Your task to perform on an android device: turn on bluetooth scan Image 0: 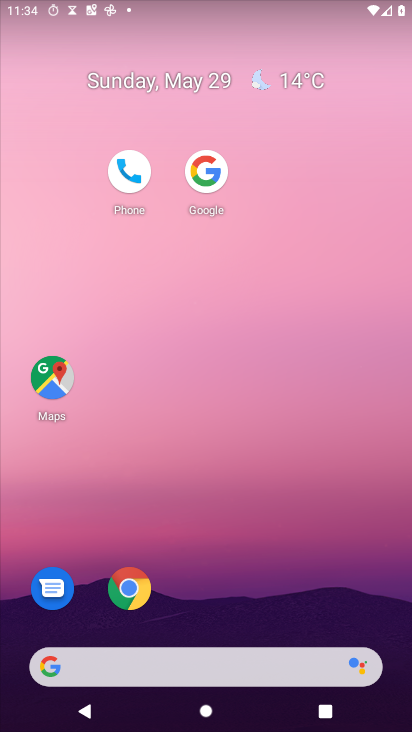
Step 0: click (348, 312)
Your task to perform on an android device: turn on bluetooth scan Image 1: 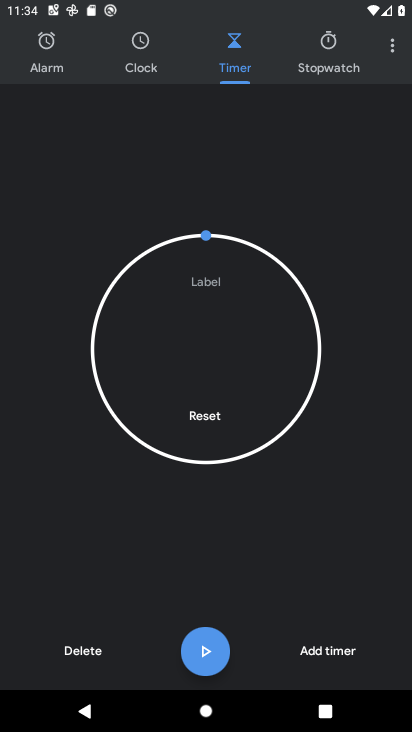
Step 1: click (327, 68)
Your task to perform on an android device: turn on bluetooth scan Image 2: 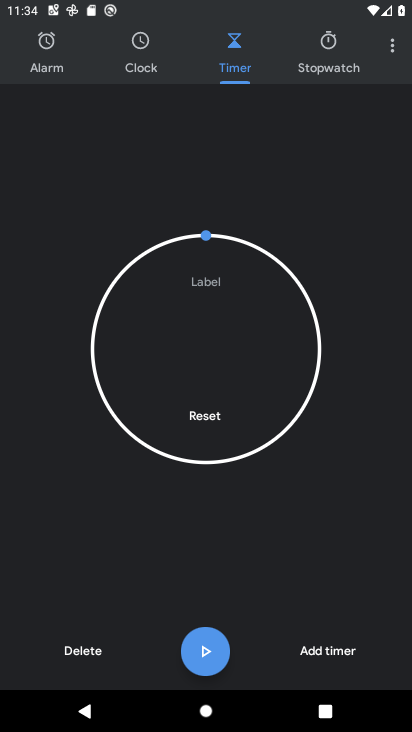
Step 2: click (327, 68)
Your task to perform on an android device: turn on bluetooth scan Image 3: 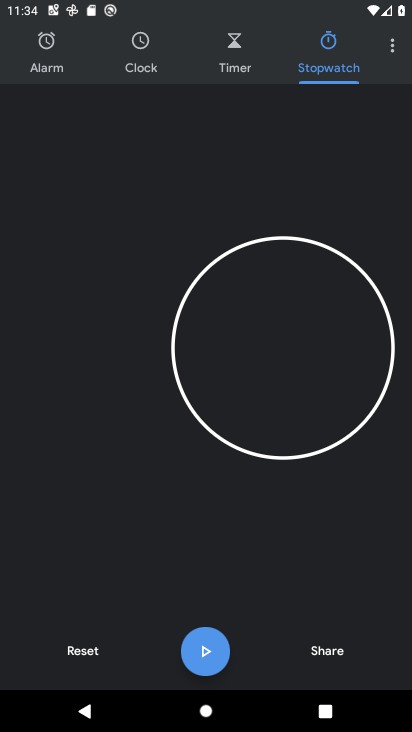
Step 3: click (327, 68)
Your task to perform on an android device: turn on bluetooth scan Image 4: 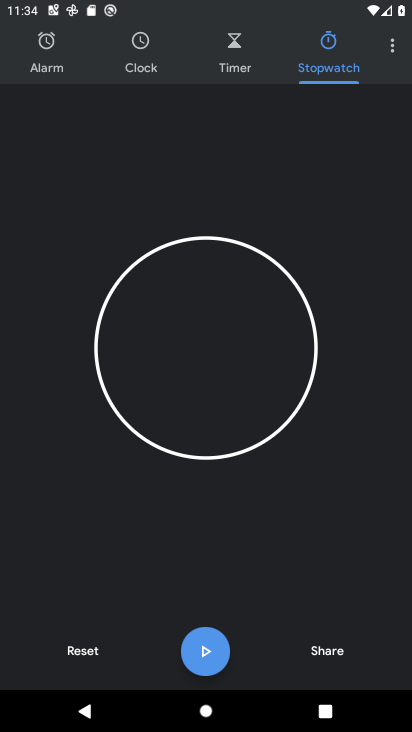
Step 4: click (327, 68)
Your task to perform on an android device: turn on bluetooth scan Image 5: 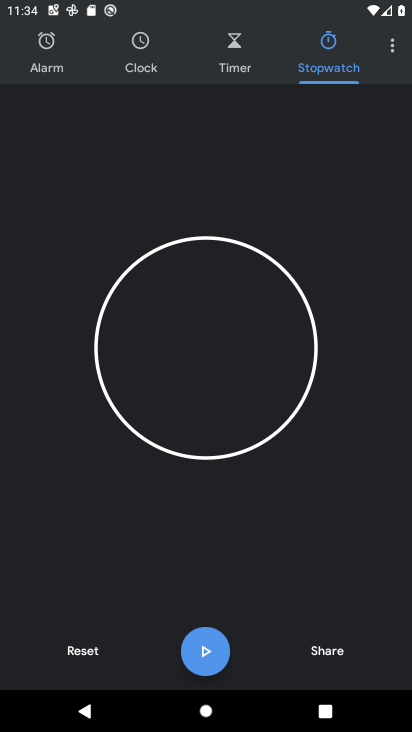
Step 5: press back button
Your task to perform on an android device: turn on bluetooth scan Image 6: 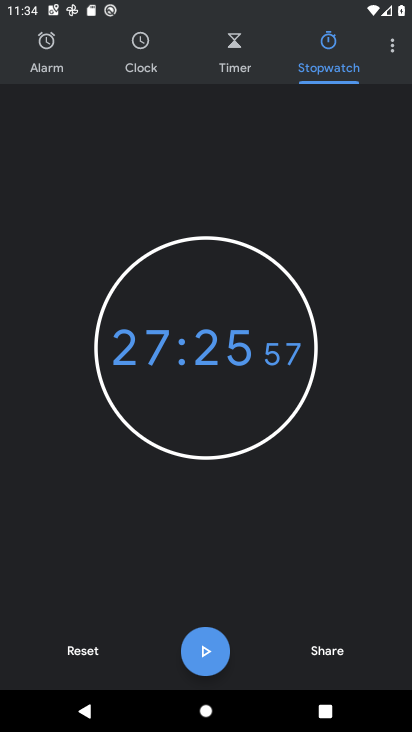
Step 6: press back button
Your task to perform on an android device: turn on bluetooth scan Image 7: 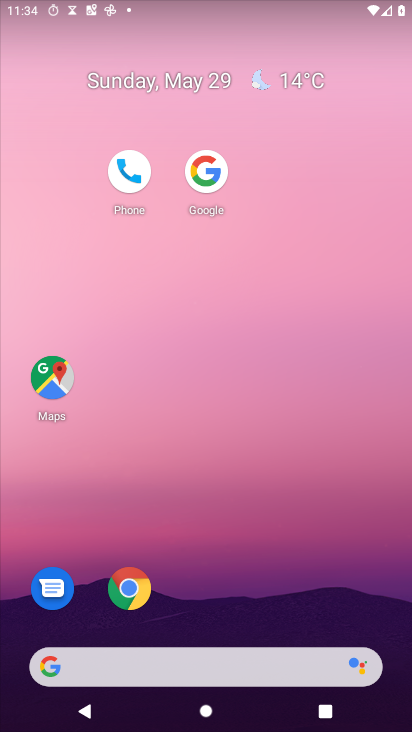
Step 7: press back button
Your task to perform on an android device: turn on bluetooth scan Image 8: 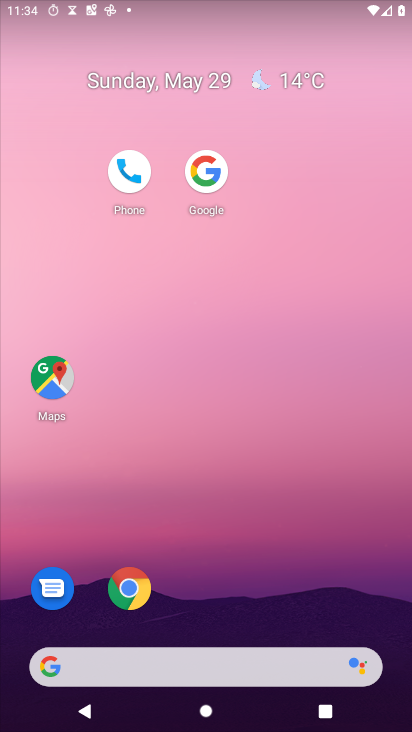
Step 8: press back button
Your task to perform on an android device: turn on bluetooth scan Image 9: 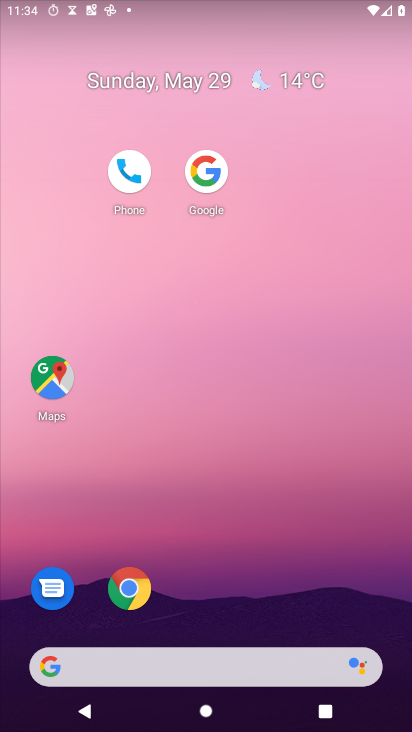
Step 9: press back button
Your task to perform on an android device: turn on bluetooth scan Image 10: 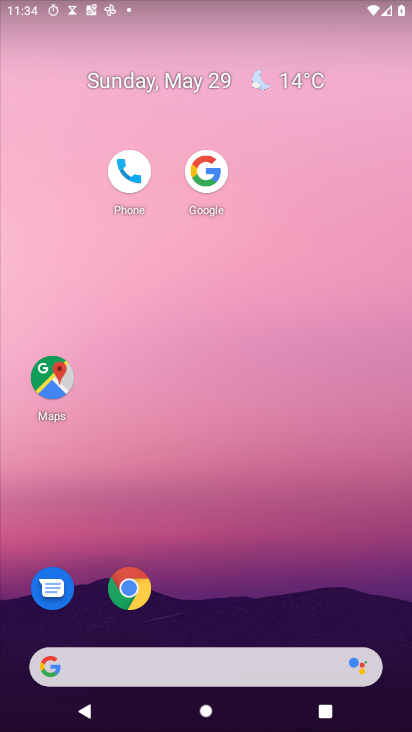
Step 10: press home button
Your task to perform on an android device: turn on bluetooth scan Image 11: 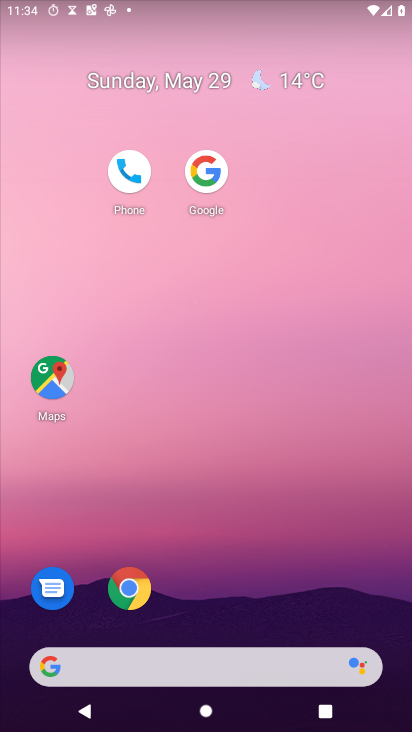
Step 11: press home button
Your task to perform on an android device: turn on bluetooth scan Image 12: 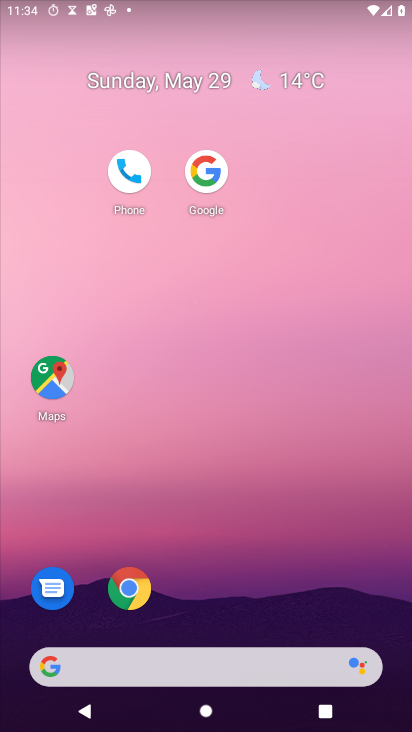
Step 12: drag from (261, 719) to (196, 125)
Your task to perform on an android device: turn on bluetooth scan Image 13: 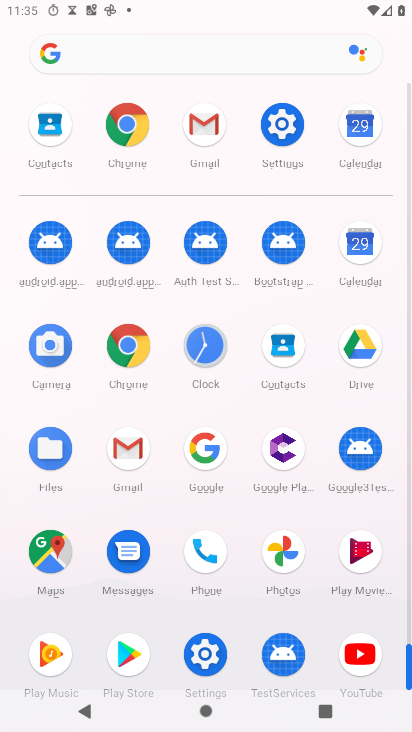
Step 13: click (204, 654)
Your task to perform on an android device: turn on bluetooth scan Image 14: 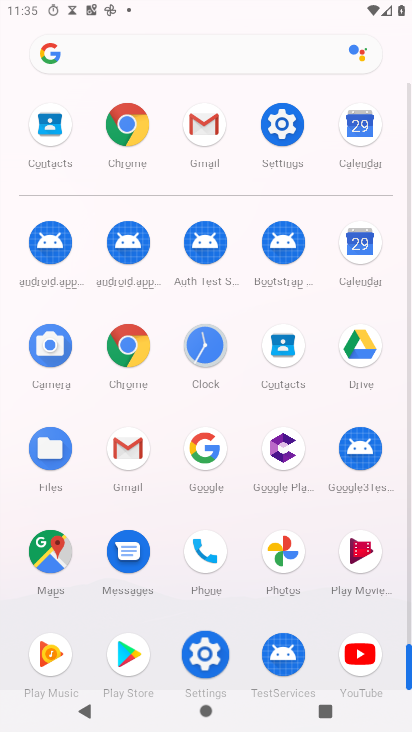
Step 14: click (207, 656)
Your task to perform on an android device: turn on bluetooth scan Image 15: 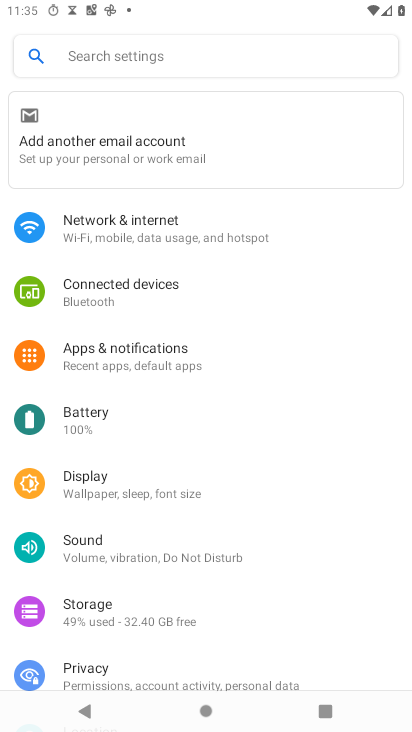
Step 15: click (111, 353)
Your task to perform on an android device: turn on bluetooth scan Image 16: 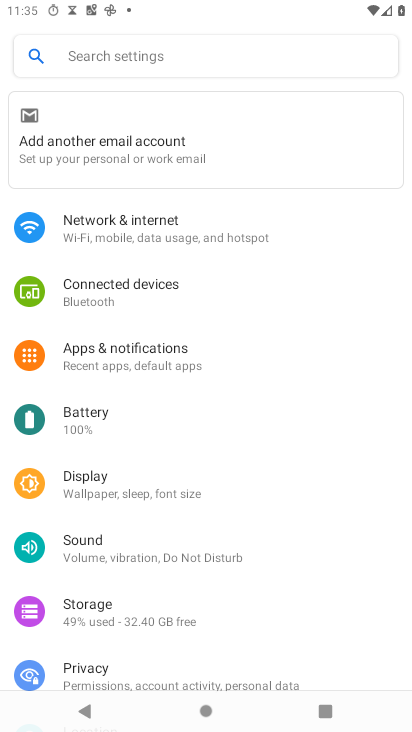
Step 16: click (154, 291)
Your task to perform on an android device: turn on bluetooth scan Image 17: 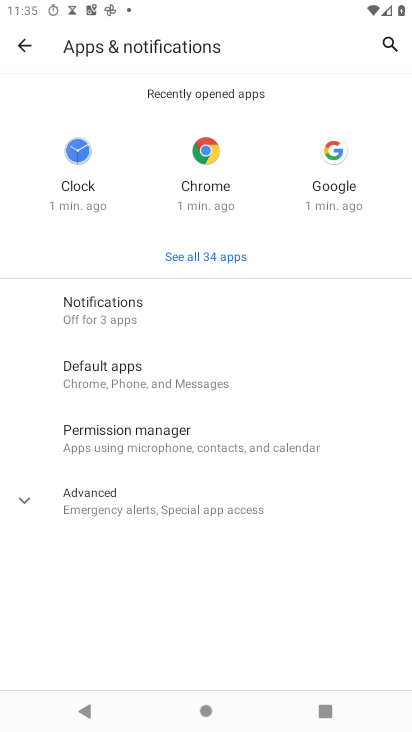
Step 17: drag from (117, 348) to (162, 274)
Your task to perform on an android device: turn on bluetooth scan Image 18: 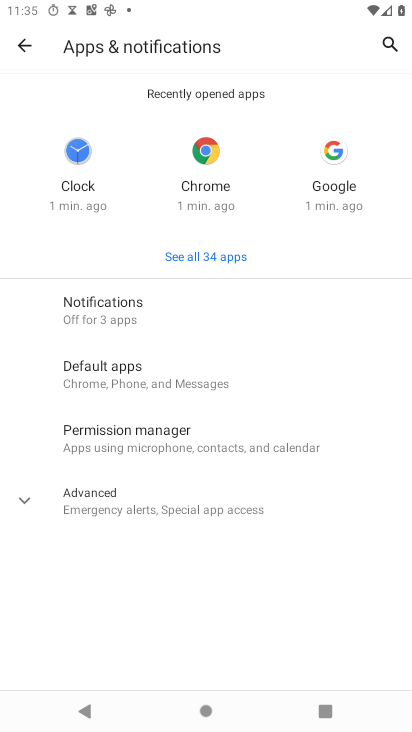
Step 18: drag from (160, 467) to (134, 172)
Your task to perform on an android device: turn on bluetooth scan Image 19: 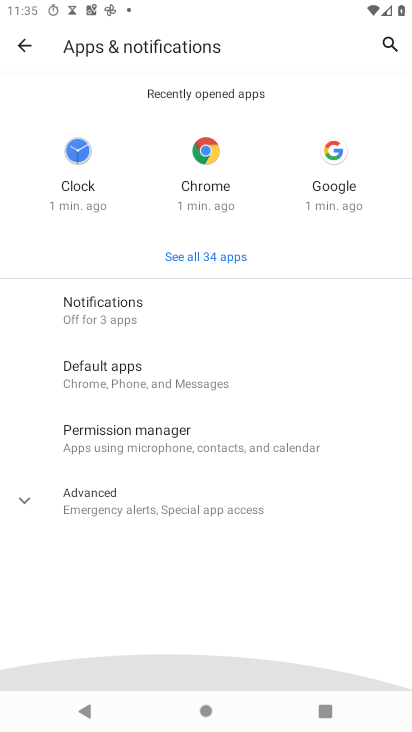
Step 19: click (150, 203)
Your task to perform on an android device: turn on bluetooth scan Image 20: 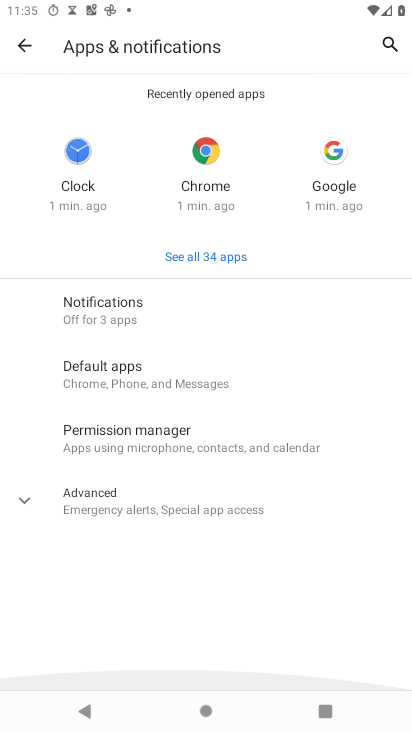
Step 20: drag from (82, 314) to (146, 201)
Your task to perform on an android device: turn on bluetooth scan Image 21: 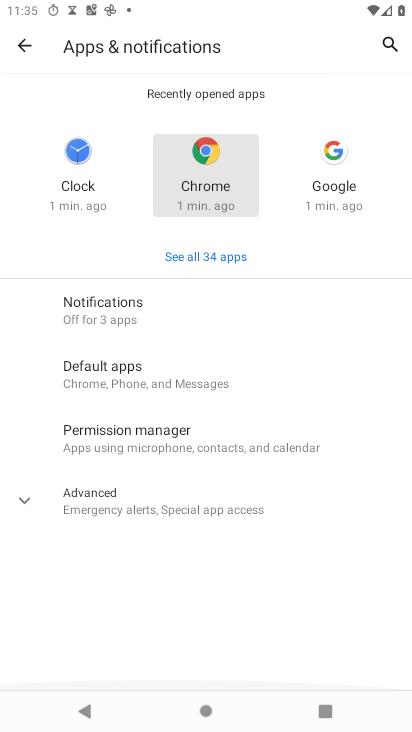
Step 21: click (11, 40)
Your task to perform on an android device: turn on bluetooth scan Image 22: 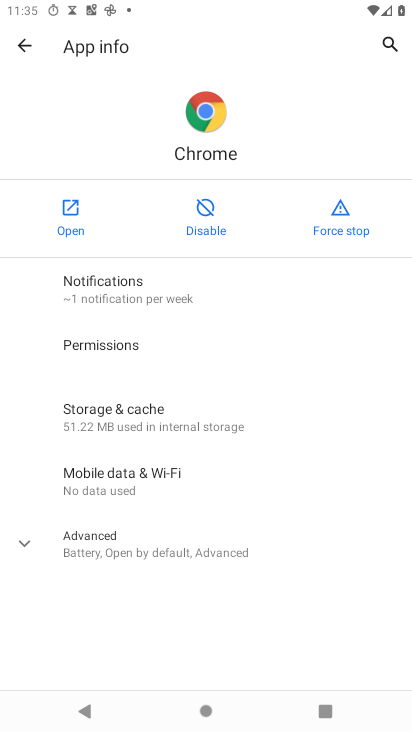
Step 22: click (21, 41)
Your task to perform on an android device: turn on bluetooth scan Image 23: 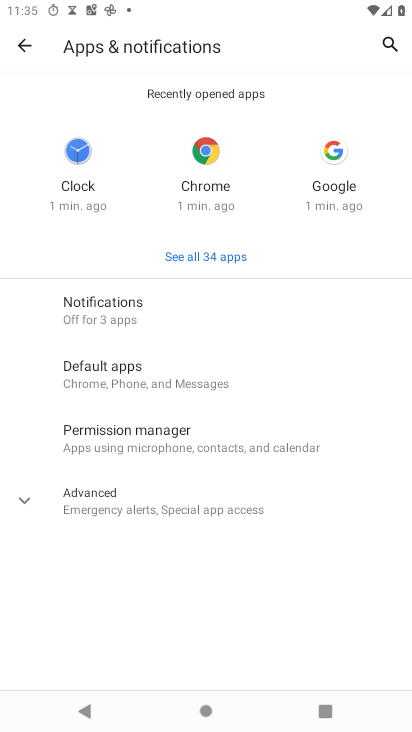
Step 23: click (21, 44)
Your task to perform on an android device: turn on bluetooth scan Image 24: 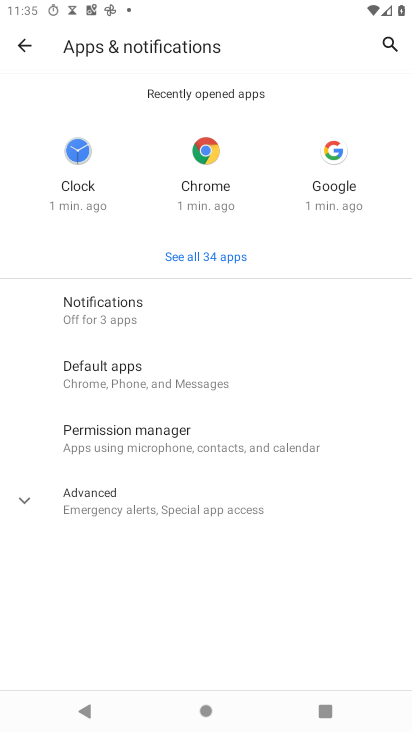
Step 24: click (24, 41)
Your task to perform on an android device: turn on bluetooth scan Image 25: 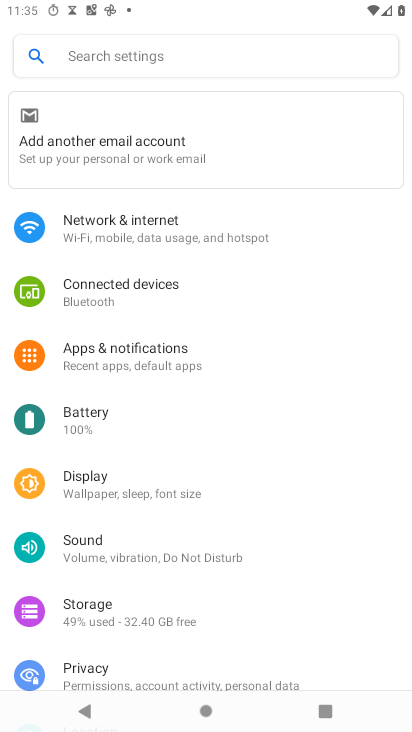
Step 25: drag from (140, 585) to (132, 298)
Your task to perform on an android device: turn on bluetooth scan Image 26: 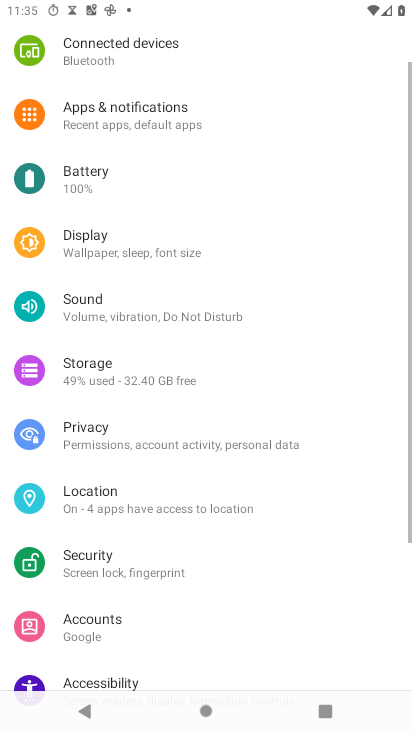
Step 26: drag from (180, 483) to (152, 240)
Your task to perform on an android device: turn on bluetooth scan Image 27: 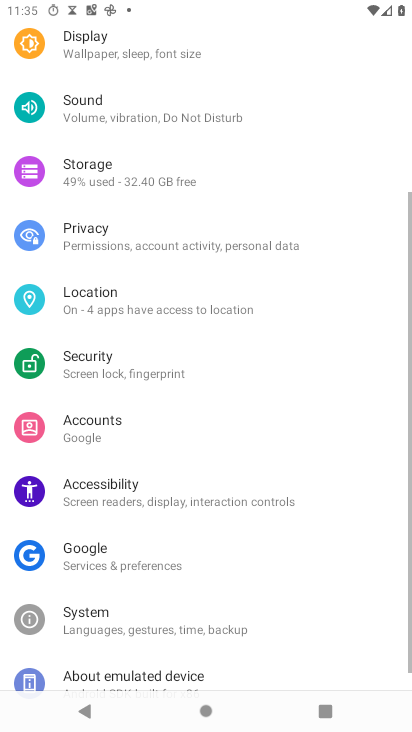
Step 27: drag from (218, 528) to (181, 328)
Your task to perform on an android device: turn on bluetooth scan Image 28: 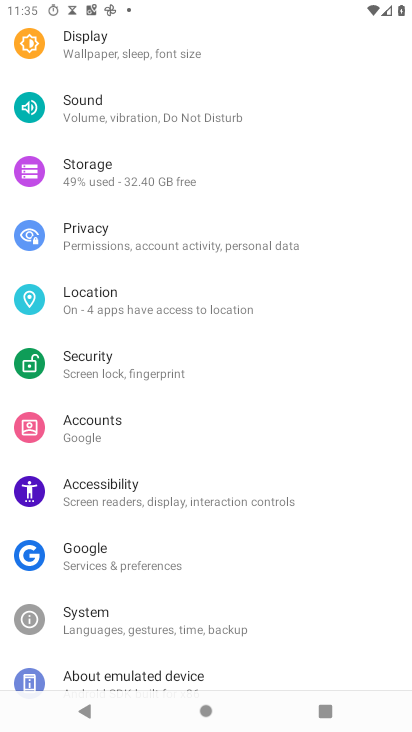
Step 28: drag from (111, 606) to (82, 327)
Your task to perform on an android device: turn on bluetooth scan Image 29: 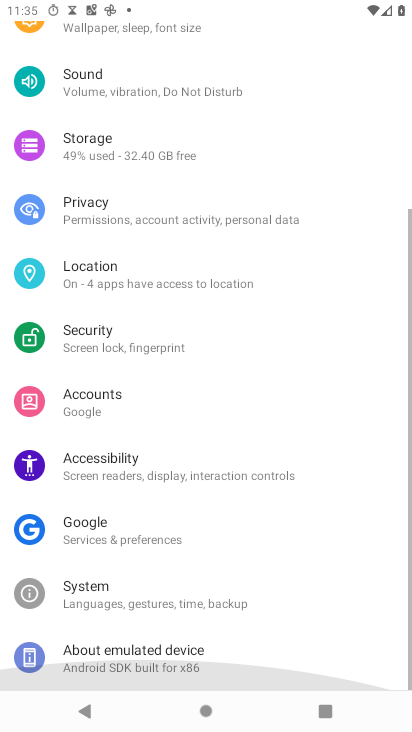
Step 29: drag from (115, 510) to (112, 212)
Your task to perform on an android device: turn on bluetooth scan Image 30: 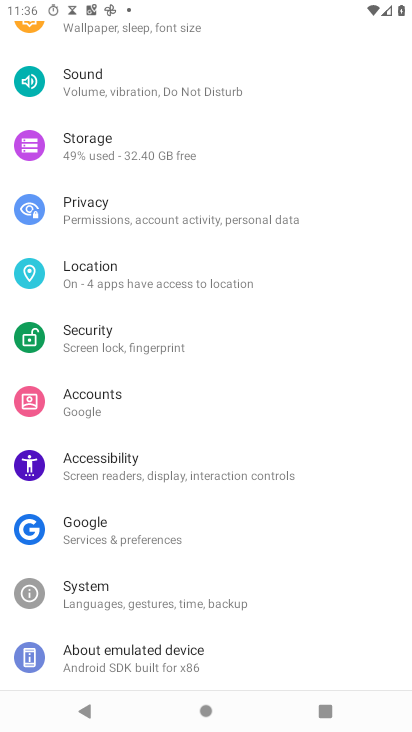
Step 30: click (89, 262)
Your task to perform on an android device: turn on bluetooth scan Image 31: 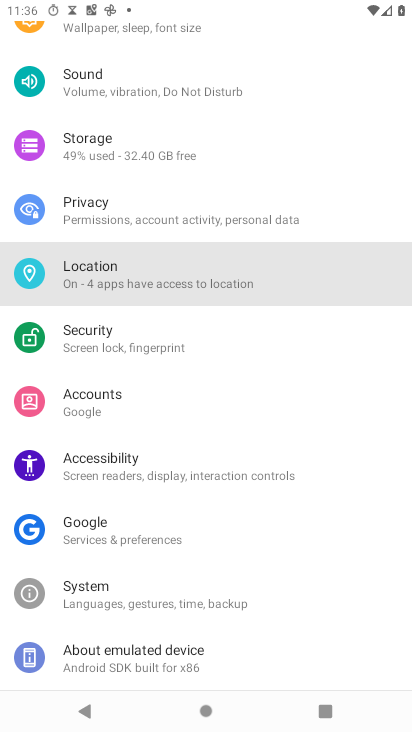
Step 31: click (101, 267)
Your task to perform on an android device: turn on bluetooth scan Image 32: 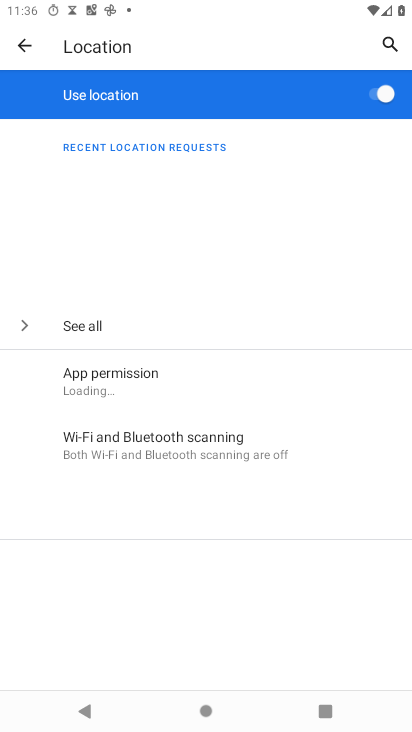
Step 32: click (101, 267)
Your task to perform on an android device: turn on bluetooth scan Image 33: 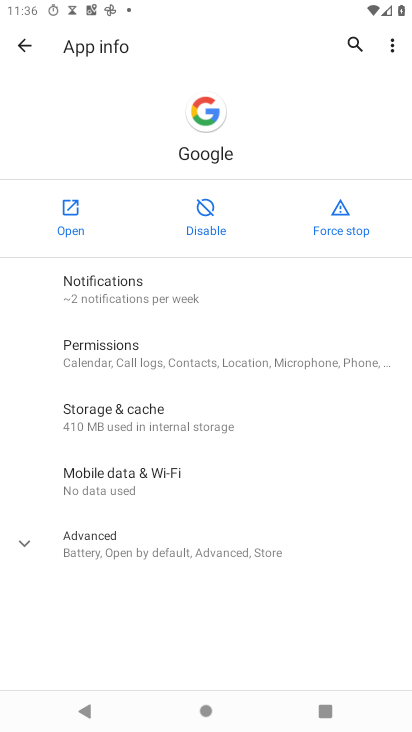
Step 33: click (25, 43)
Your task to perform on an android device: turn on bluetooth scan Image 34: 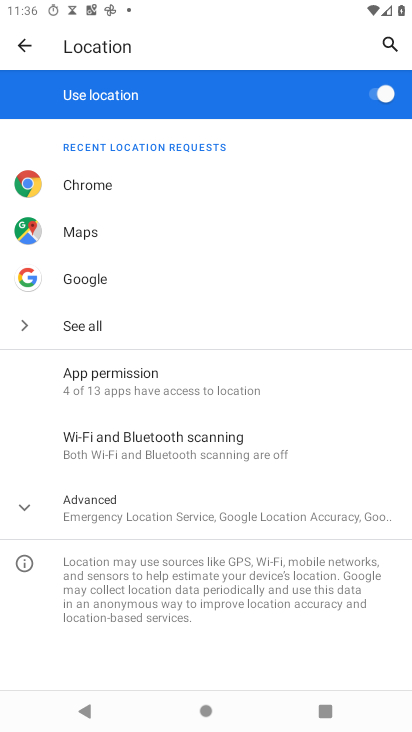
Step 34: click (149, 446)
Your task to perform on an android device: turn on bluetooth scan Image 35: 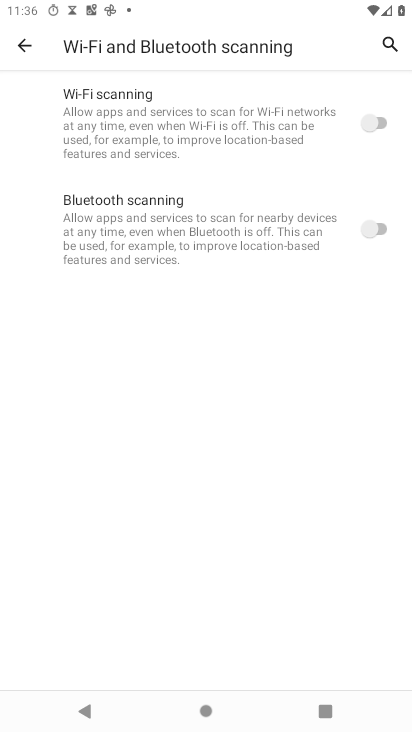
Step 35: click (365, 223)
Your task to perform on an android device: turn on bluetooth scan Image 36: 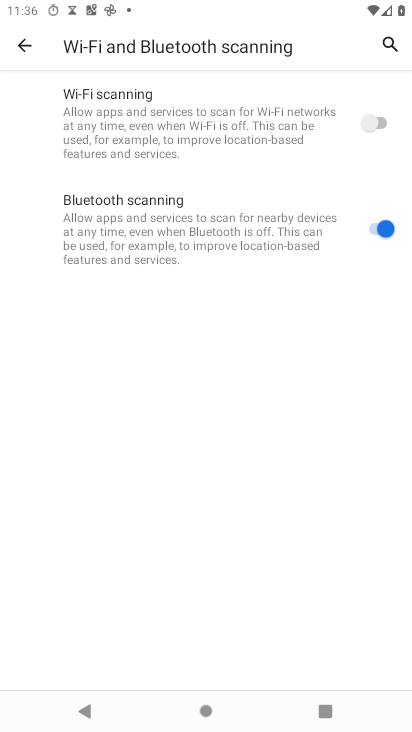
Step 36: task complete